Your task to perform on an android device: Open ESPN.com Image 0: 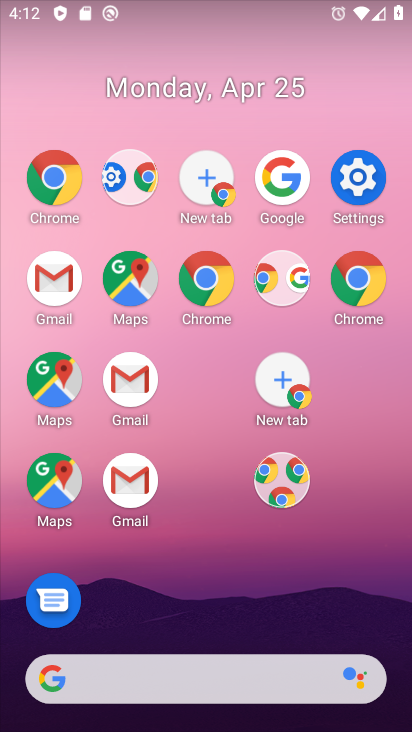
Step 0: drag from (329, 700) to (138, 6)
Your task to perform on an android device: Open ESPN.com Image 1: 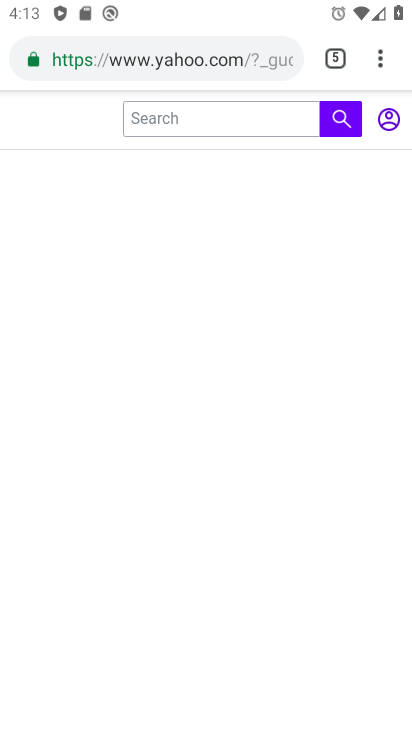
Step 1: press home button
Your task to perform on an android device: Open ESPN.com Image 2: 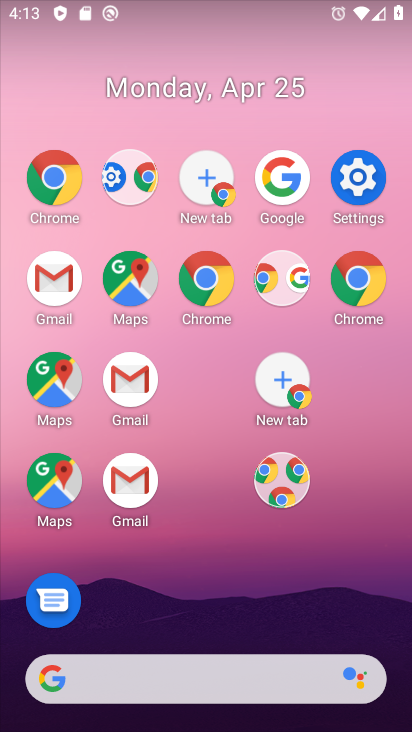
Step 2: drag from (293, 568) to (160, 17)
Your task to perform on an android device: Open ESPN.com Image 3: 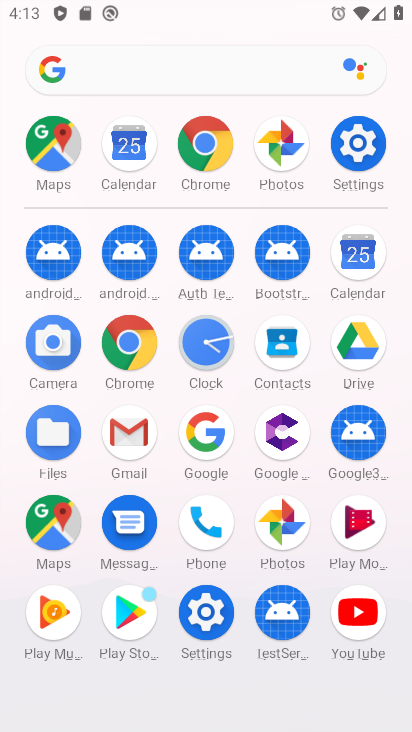
Step 3: click (199, 147)
Your task to perform on an android device: Open ESPN.com Image 4: 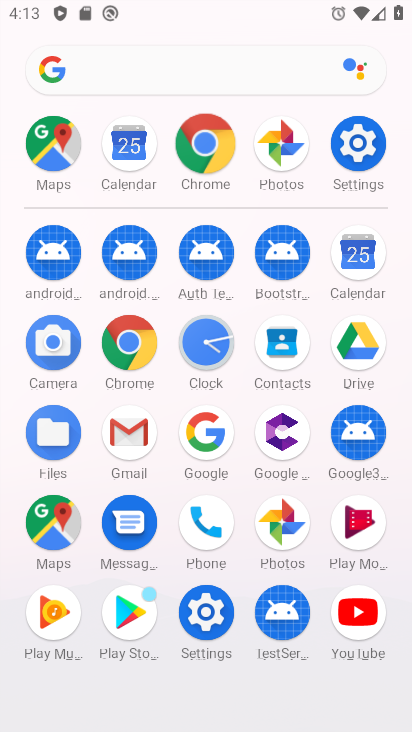
Step 4: click (193, 148)
Your task to perform on an android device: Open ESPN.com Image 5: 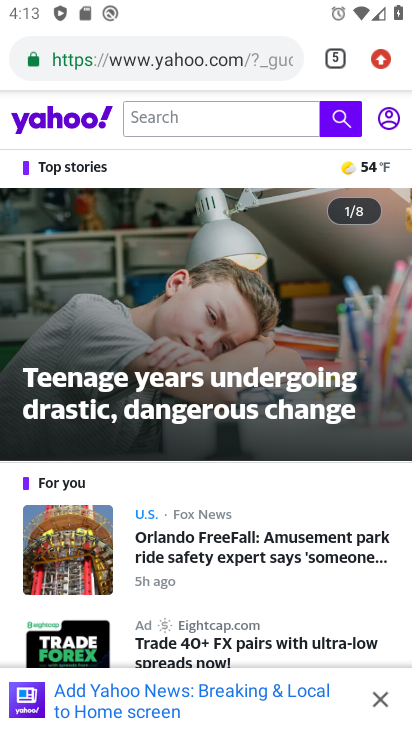
Step 5: drag from (379, 53) to (154, 185)
Your task to perform on an android device: Open ESPN.com Image 6: 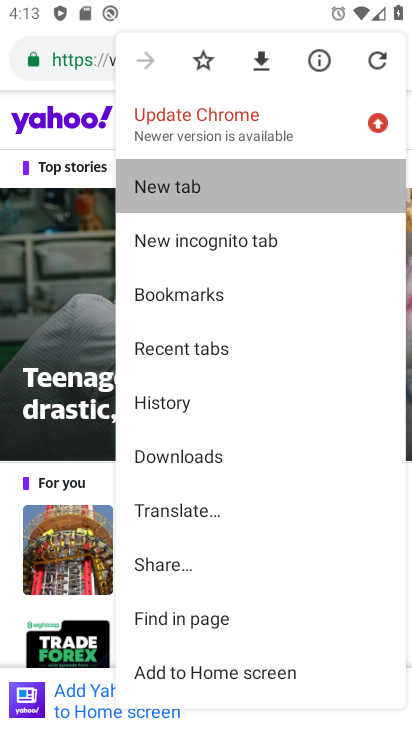
Step 6: click (154, 185)
Your task to perform on an android device: Open ESPN.com Image 7: 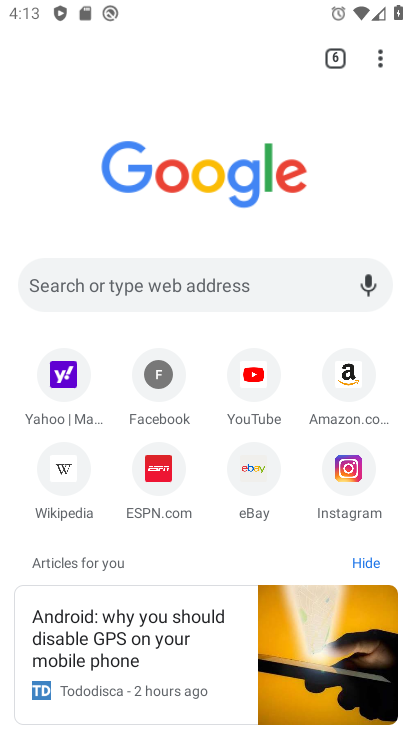
Step 7: click (162, 478)
Your task to perform on an android device: Open ESPN.com Image 8: 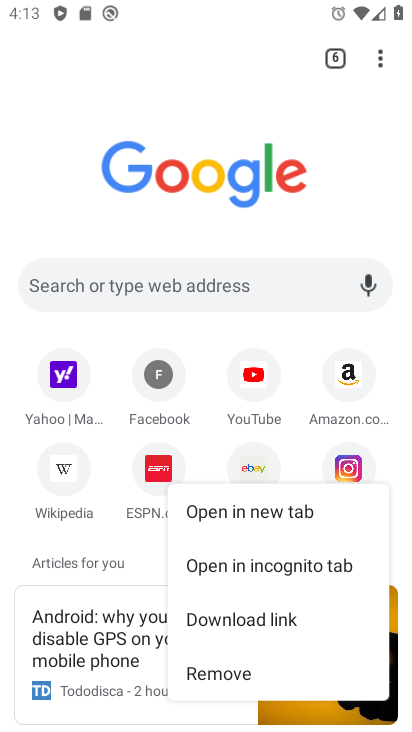
Step 8: click (163, 477)
Your task to perform on an android device: Open ESPN.com Image 9: 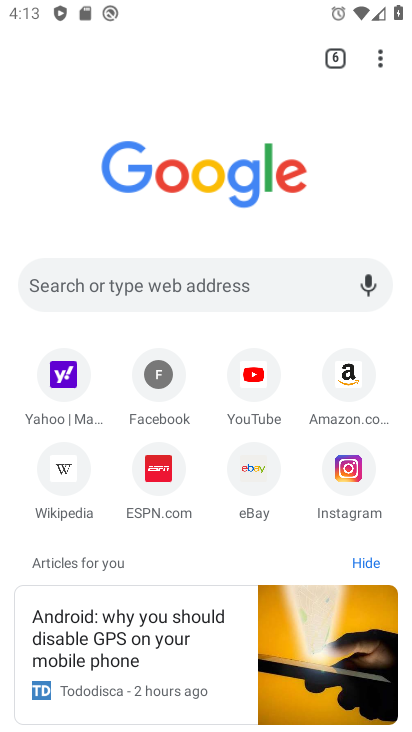
Step 9: click (161, 475)
Your task to perform on an android device: Open ESPN.com Image 10: 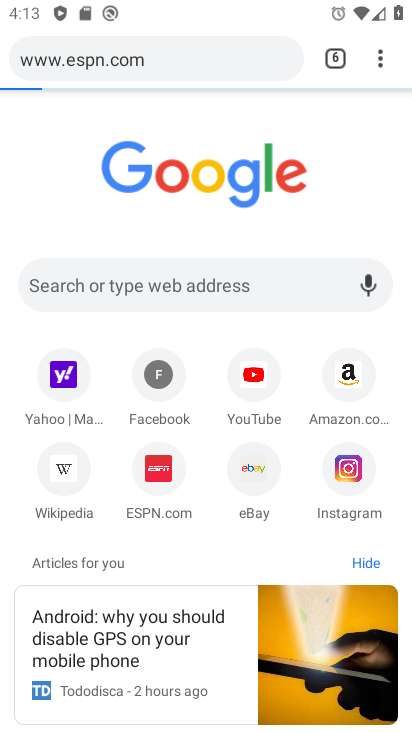
Step 10: click (153, 460)
Your task to perform on an android device: Open ESPN.com Image 11: 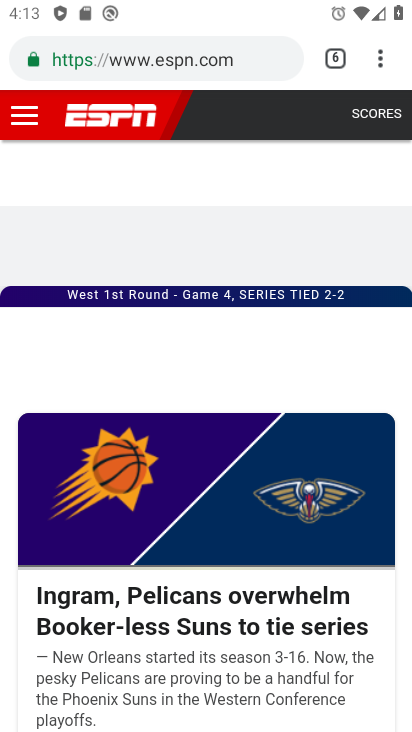
Step 11: task complete